Your task to perform on an android device: Open Google Maps and go to "Timeline" Image 0: 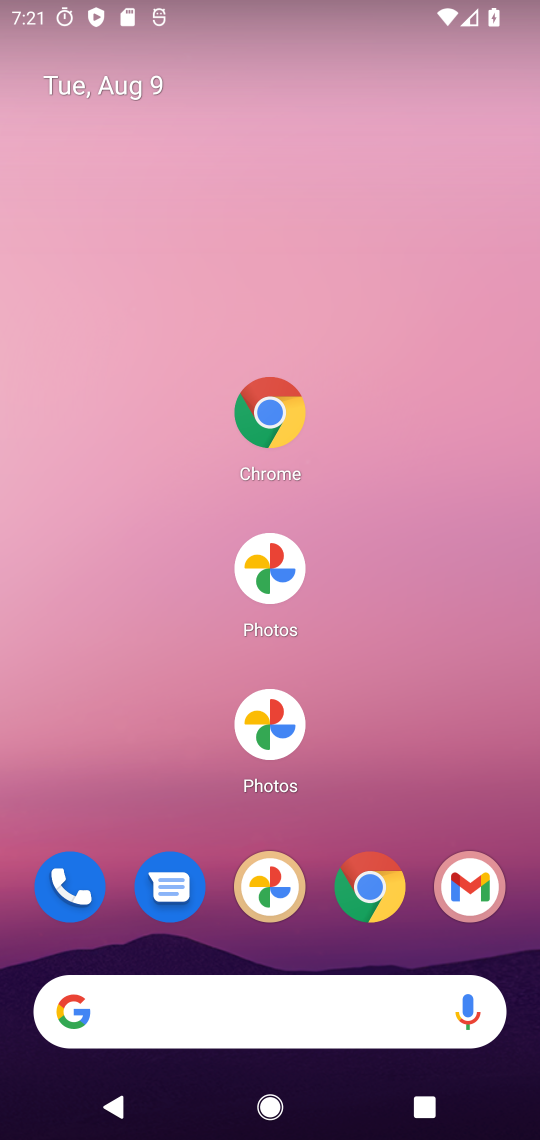
Step 0: drag from (328, 932) to (238, 216)
Your task to perform on an android device: Open Google Maps and go to "Timeline" Image 1: 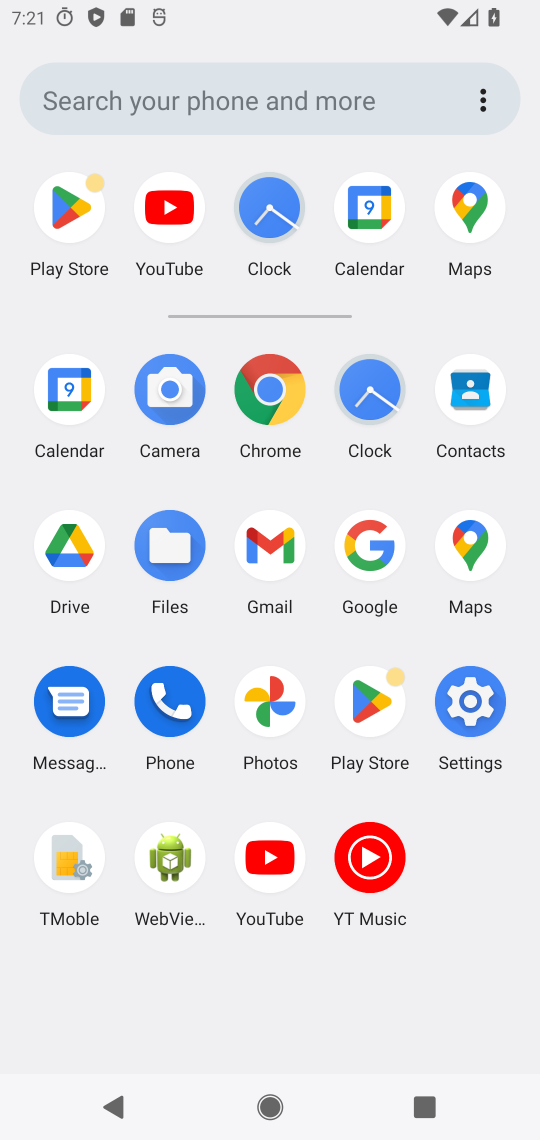
Step 1: click (470, 532)
Your task to perform on an android device: Open Google Maps and go to "Timeline" Image 2: 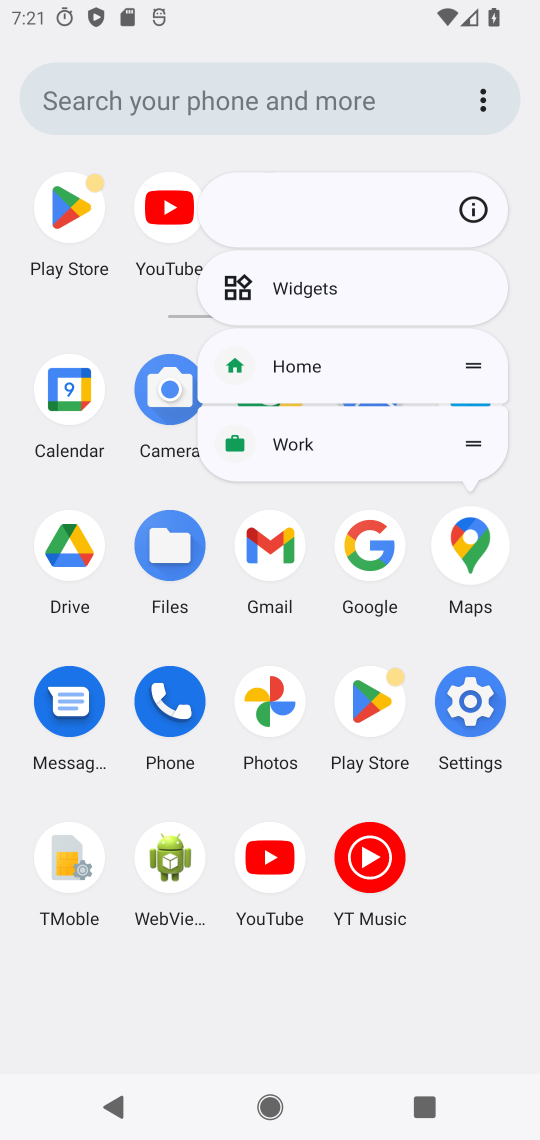
Step 2: click (473, 530)
Your task to perform on an android device: Open Google Maps and go to "Timeline" Image 3: 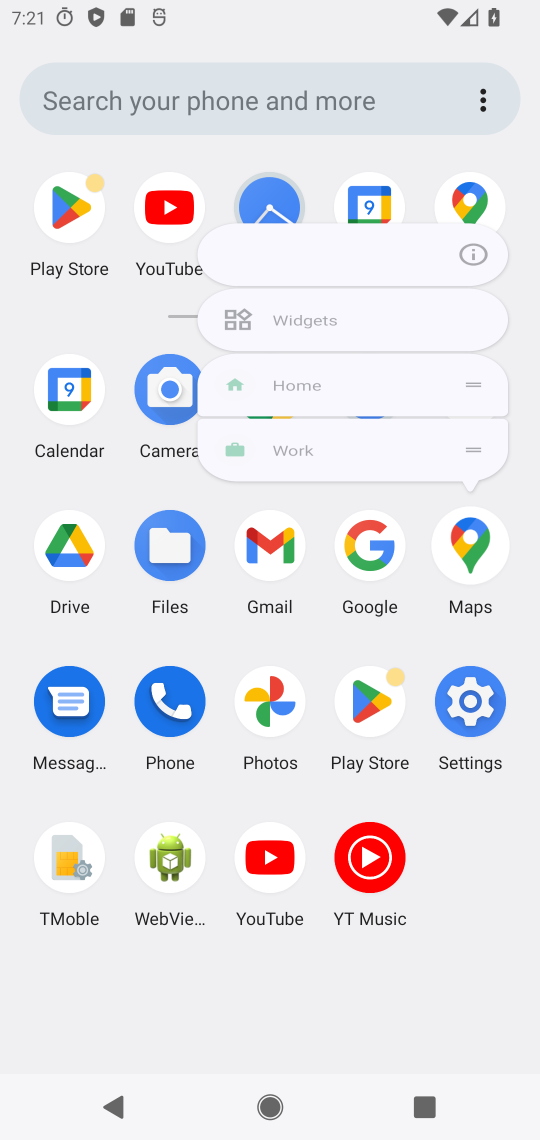
Step 3: click (478, 530)
Your task to perform on an android device: Open Google Maps and go to "Timeline" Image 4: 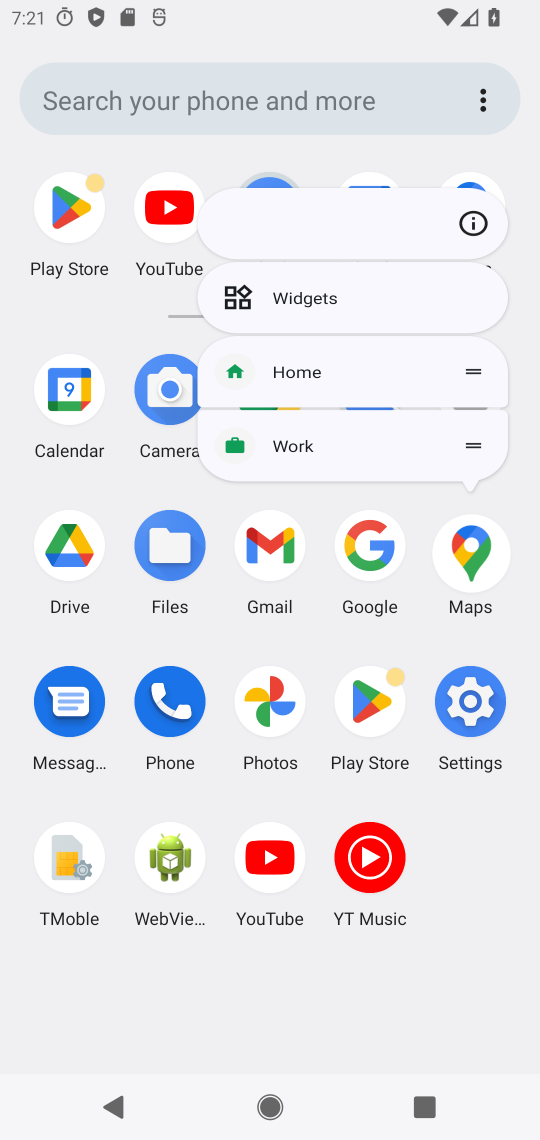
Step 4: click (480, 541)
Your task to perform on an android device: Open Google Maps and go to "Timeline" Image 5: 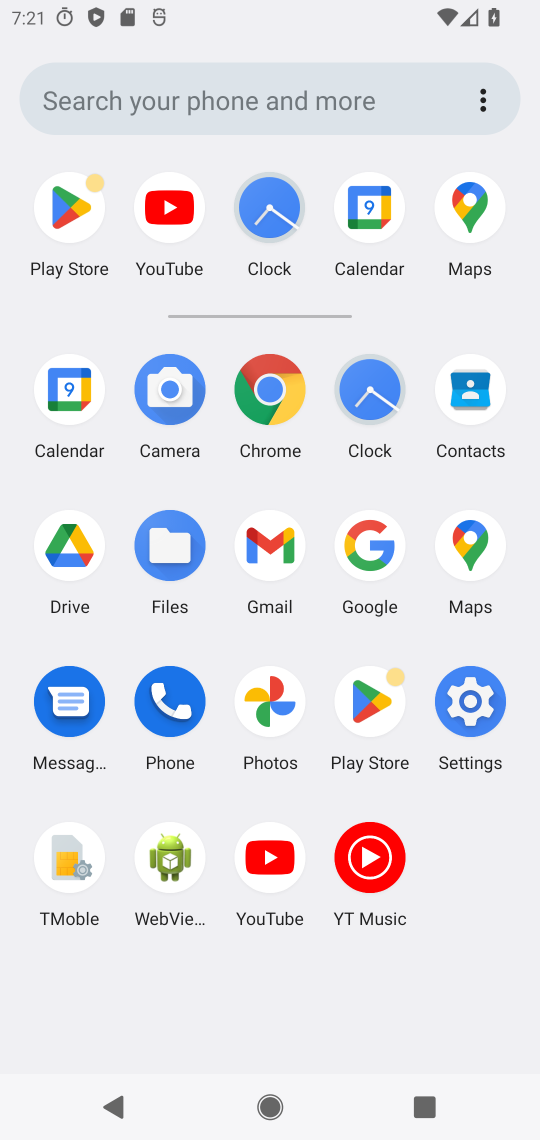
Step 5: click (473, 546)
Your task to perform on an android device: Open Google Maps and go to "Timeline" Image 6: 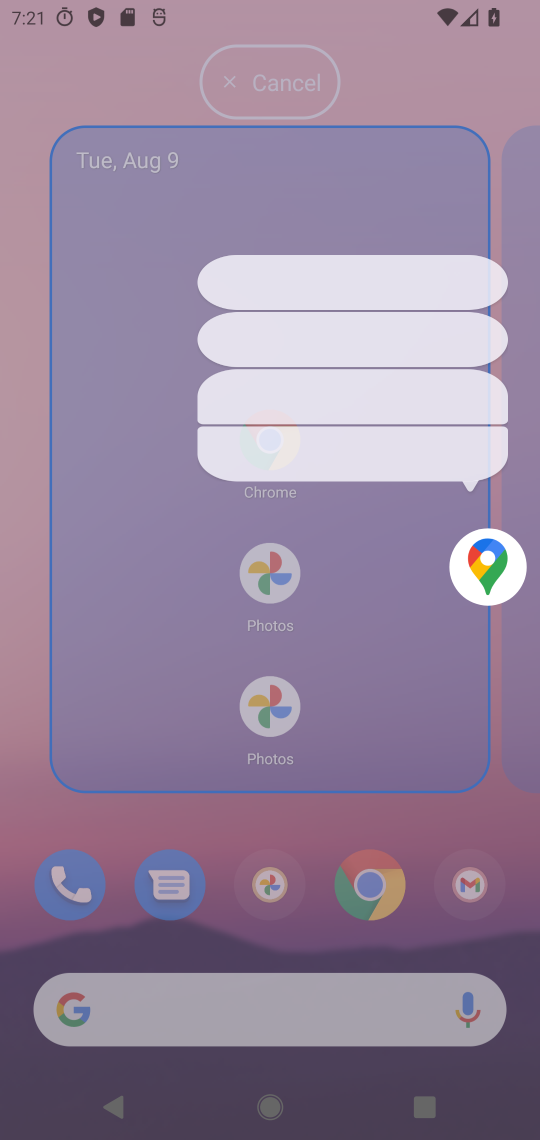
Step 6: click (452, 524)
Your task to perform on an android device: Open Google Maps and go to "Timeline" Image 7: 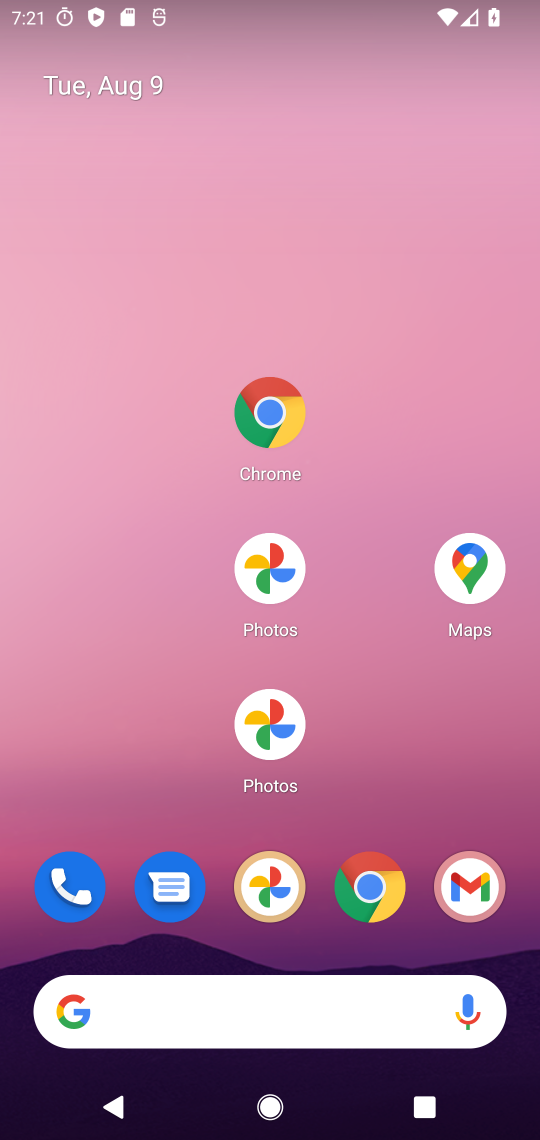
Step 7: drag from (314, 1037) to (246, 108)
Your task to perform on an android device: Open Google Maps and go to "Timeline" Image 8: 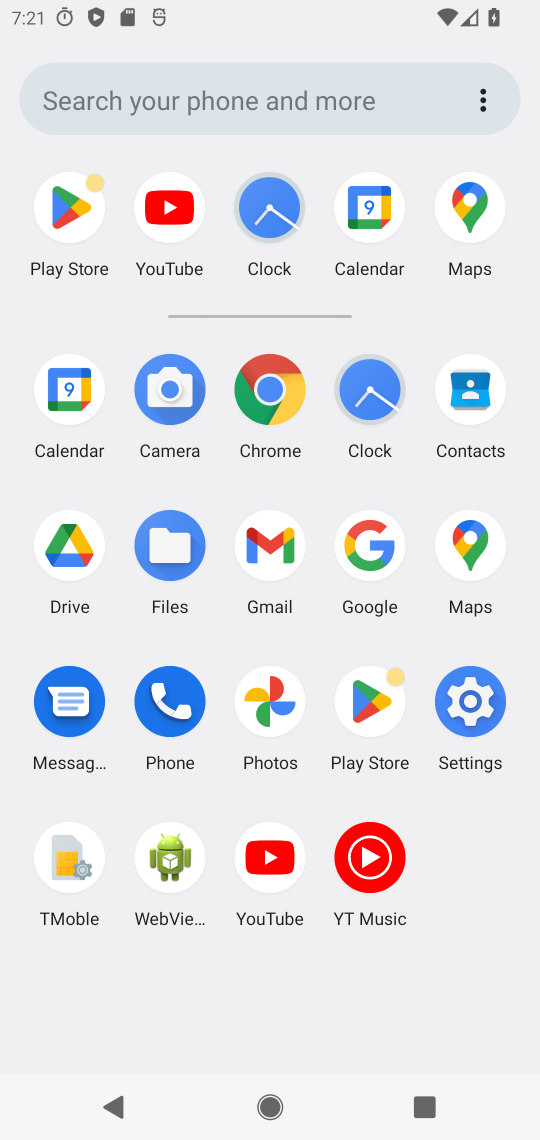
Step 8: click (462, 532)
Your task to perform on an android device: Open Google Maps and go to "Timeline" Image 9: 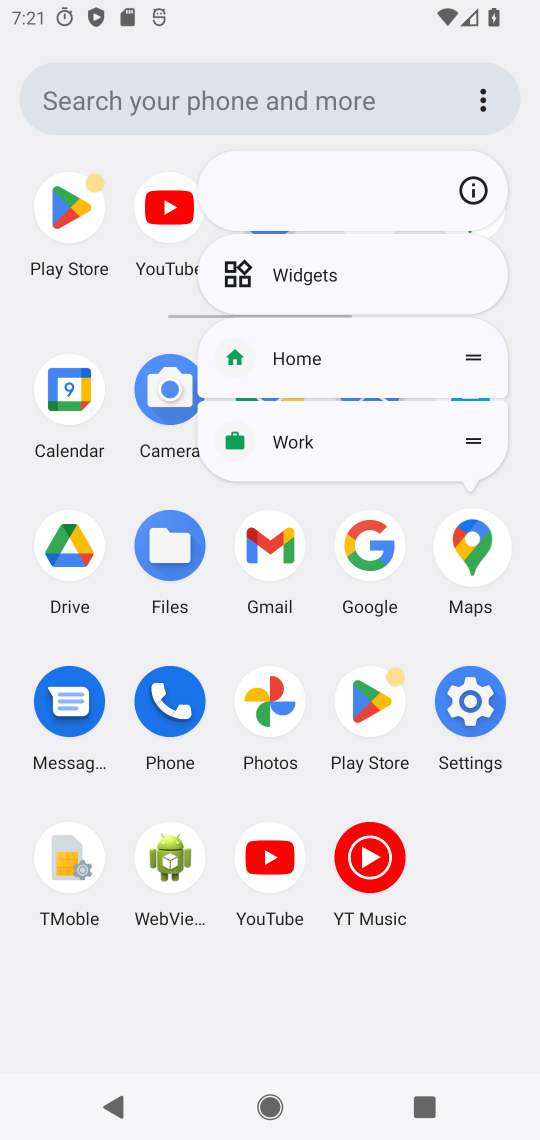
Step 9: click (484, 567)
Your task to perform on an android device: Open Google Maps and go to "Timeline" Image 10: 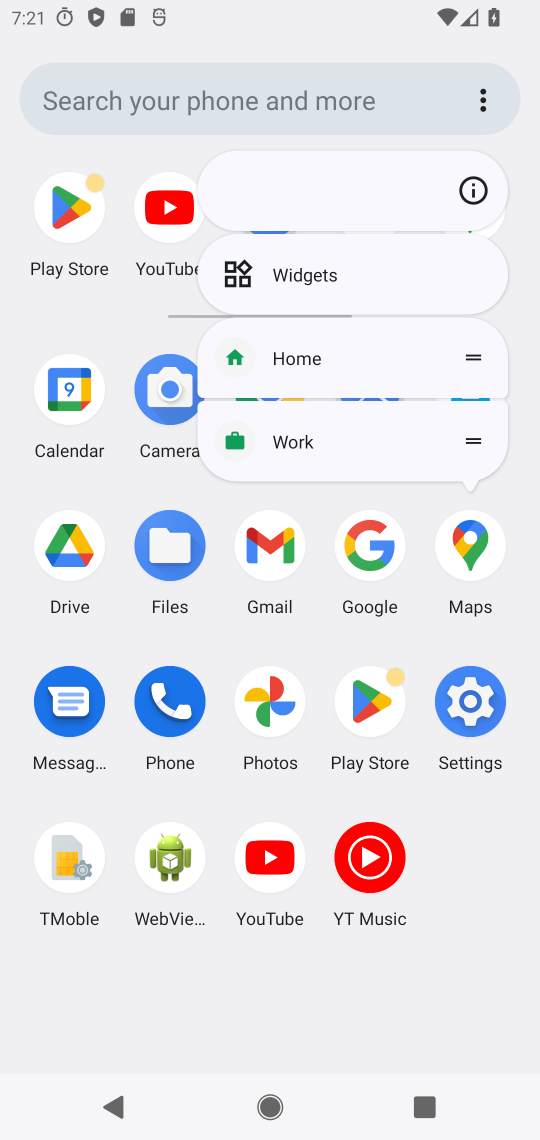
Step 10: click (460, 535)
Your task to perform on an android device: Open Google Maps and go to "Timeline" Image 11: 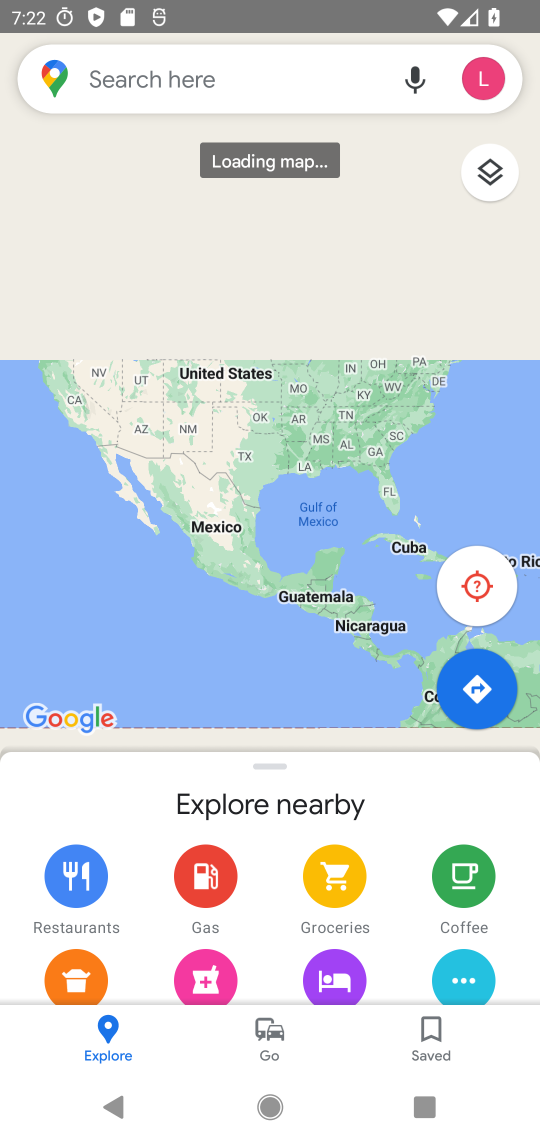
Step 11: click (69, 81)
Your task to perform on an android device: Open Google Maps and go to "Timeline" Image 12: 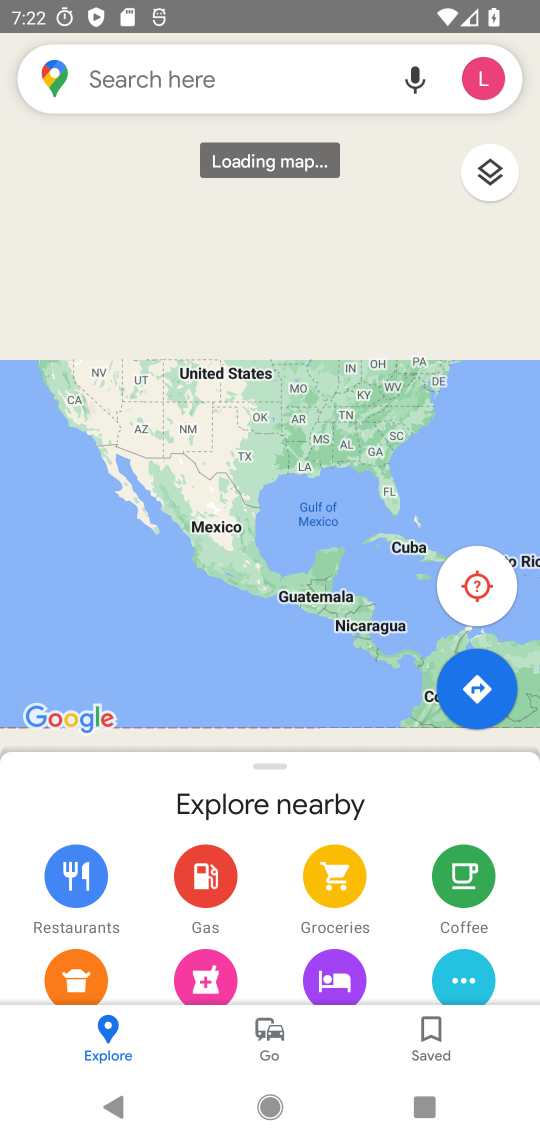
Step 12: click (66, 86)
Your task to perform on an android device: Open Google Maps and go to "Timeline" Image 13: 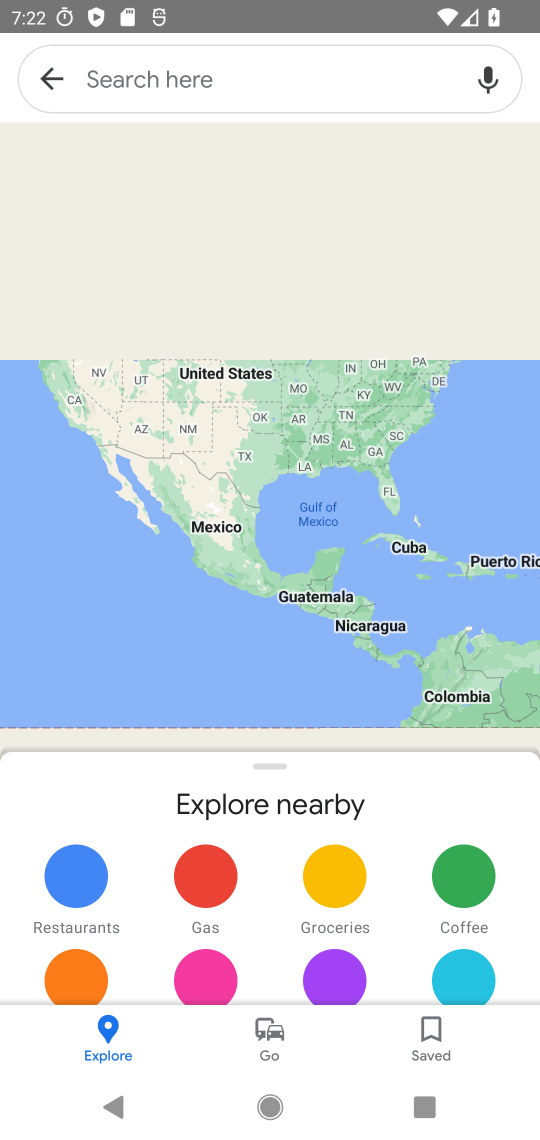
Step 13: click (66, 86)
Your task to perform on an android device: Open Google Maps and go to "Timeline" Image 14: 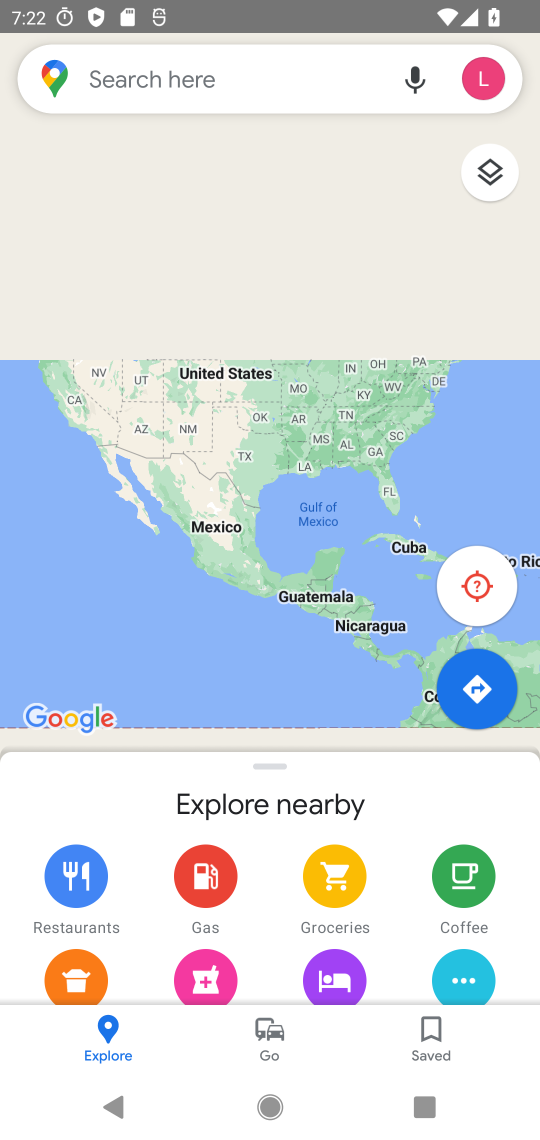
Step 14: click (487, 89)
Your task to perform on an android device: Open Google Maps and go to "Timeline" Image 15: 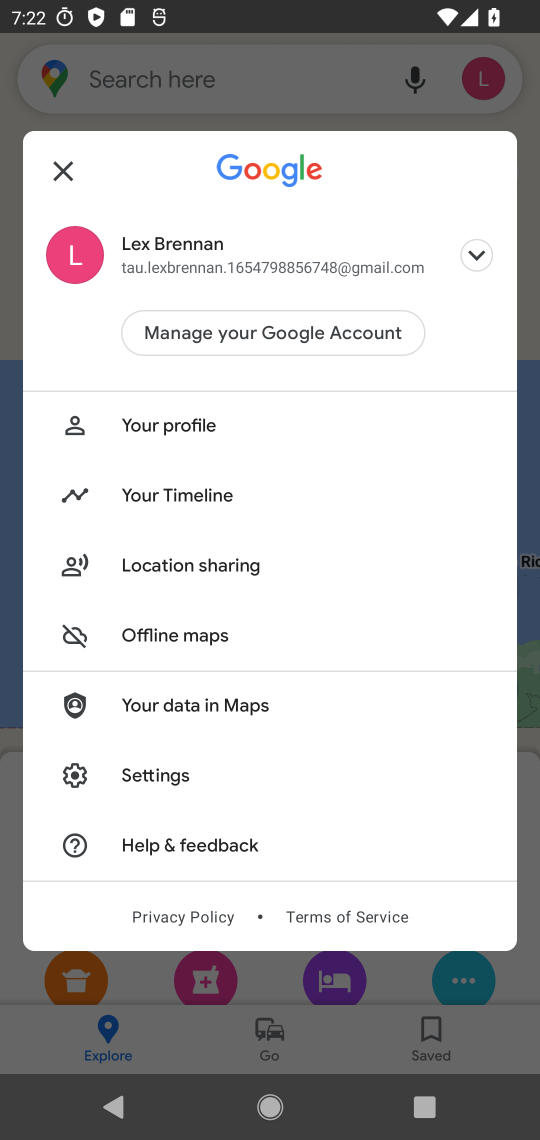
Step 15: click (169, 492)
Your task to perform on an android device: Open Google Maps and go to "Timeline" Image 16: 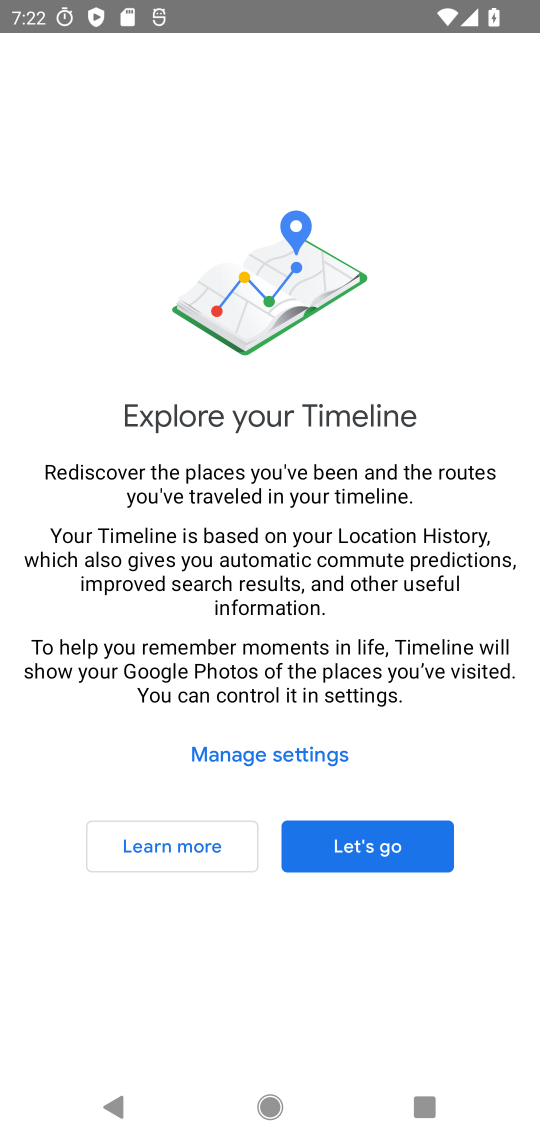
Step 16: task complete